Your task to perform on an android device: Go to sound settings Image 0: 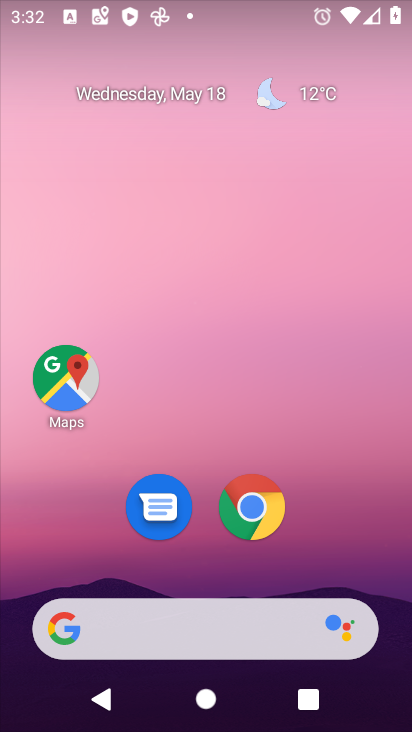
Step 0: drag from (400, 621) to (291, 155)
Your task to perform on an android device: Go to sound settings Image 1: 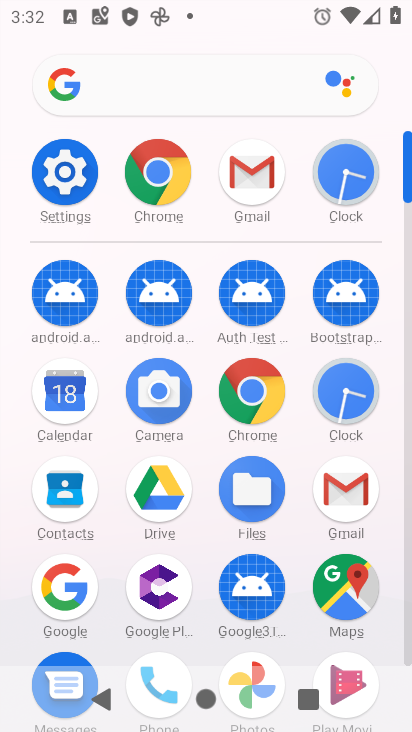
Step 1: click (409, 656)
Your task to perform on an android device: Go to sound settings Image 2: 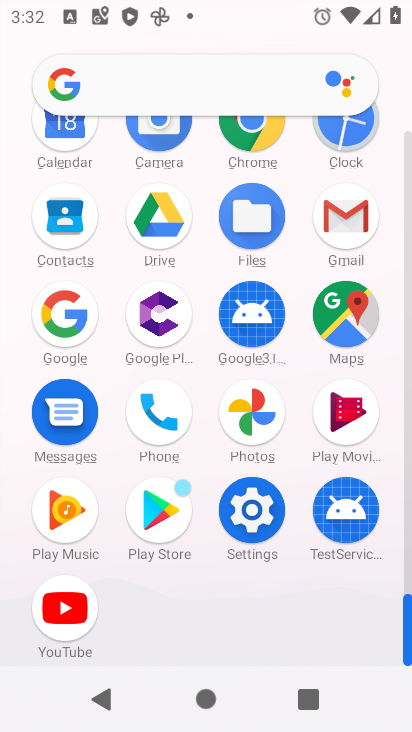
Step 2: click (252, 505)
Your task to perform on an android device: Go to sound settings Image 3: 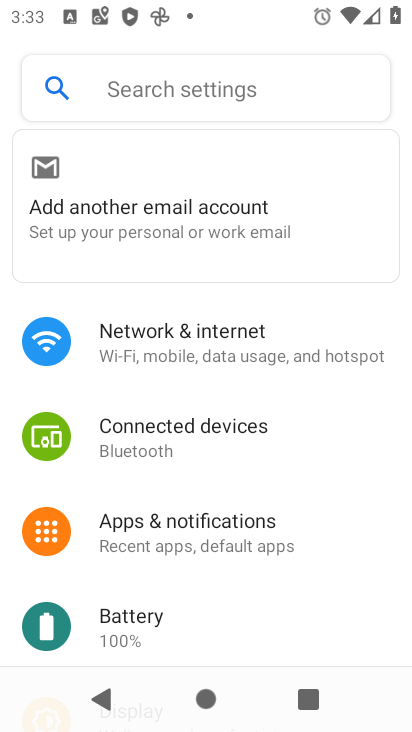
Step 3: drag from (324, 636) to (282, 93)
Your task to perform on an android device: Go to sound settings Image 4: 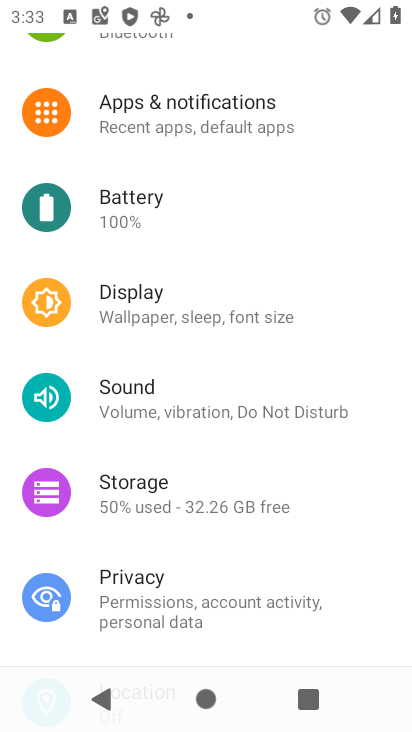
Step 4: click (148, 392)
Your task to perform on an android device: Go to sound settings Image 5: 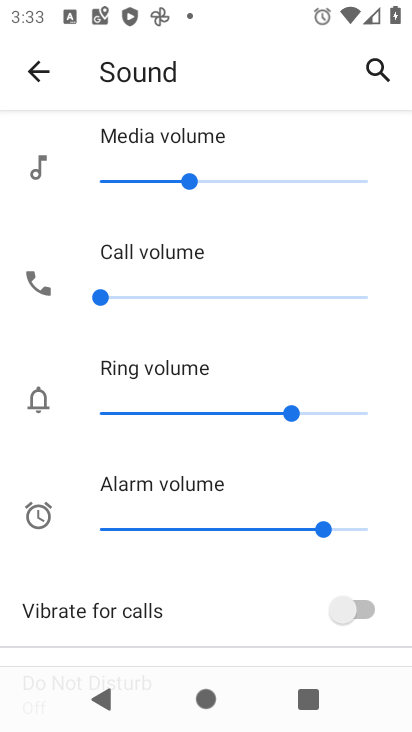
Step 5: drag from (298, 607) to (295, 244)
Your task to perform on an android device: Go to sound settings Image 6: 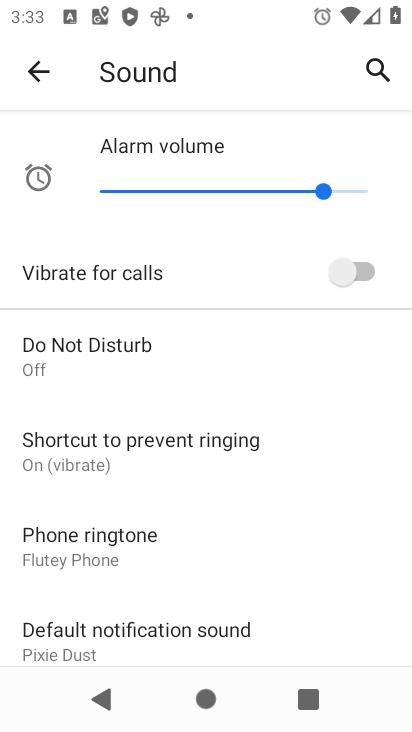
Step 6: drag from (274, 609) to (251, 204)
Your task to perform on an android device: Go to sound settings Image 7: 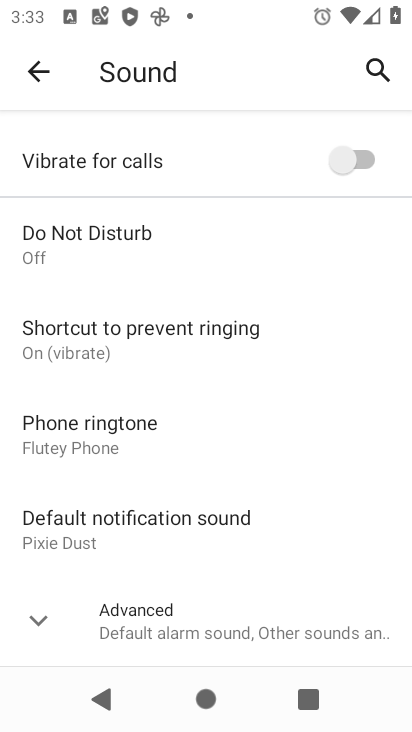
Step 7: click (30, 615)
Your task to perform on an android device: Go to sound settings Image 8: 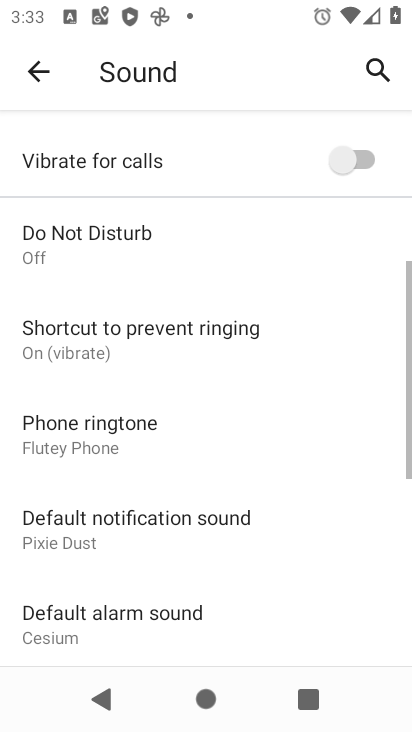
Step 8: task complete